Your task to perform on an android device: refresh tabs in the chrome app Image 0: 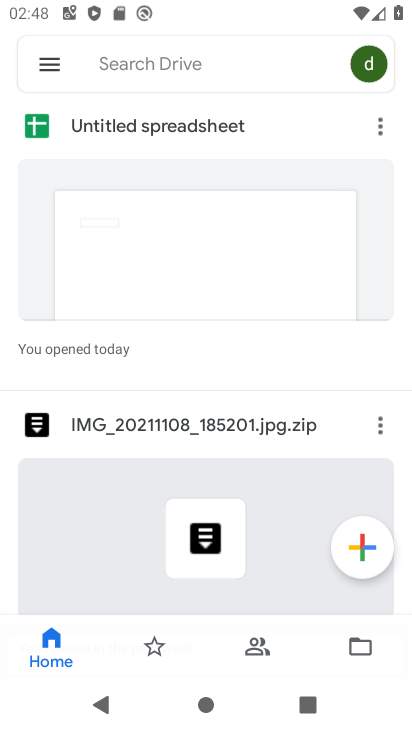
Step 0: press home button
Your task to perform on an android device: refresh tabs in the chrome app Image 1: 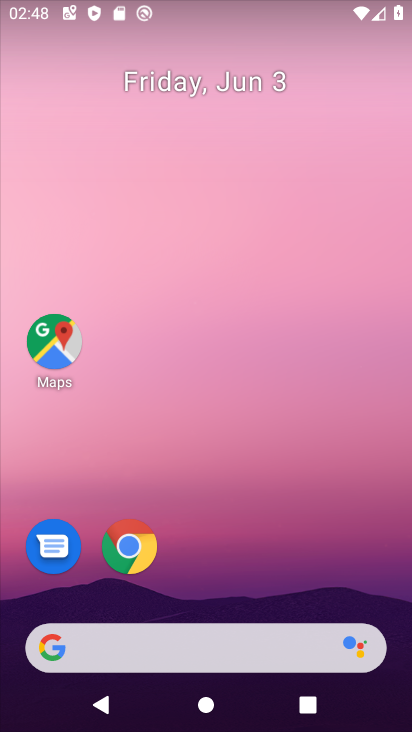
Step 1: click (121, 545)
Your task to perform on an android device: refresh tabs in the chrome app Image 2: 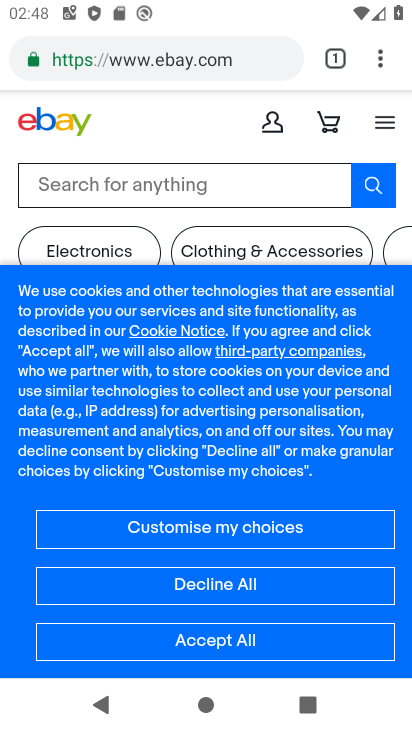
Step 2: click (363, 73)
Your task to perform on an android device: refresh tabs in the chrome app Image 3: 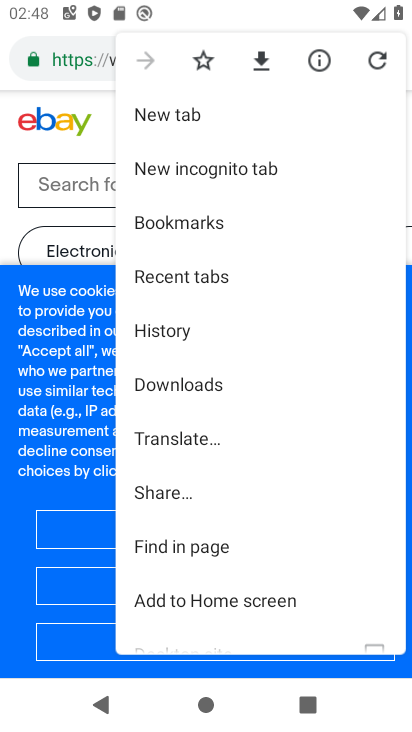
Step 3: click (364, 73)
Your task to perform on an android device: refresh tabs in the chrome app Image 4: 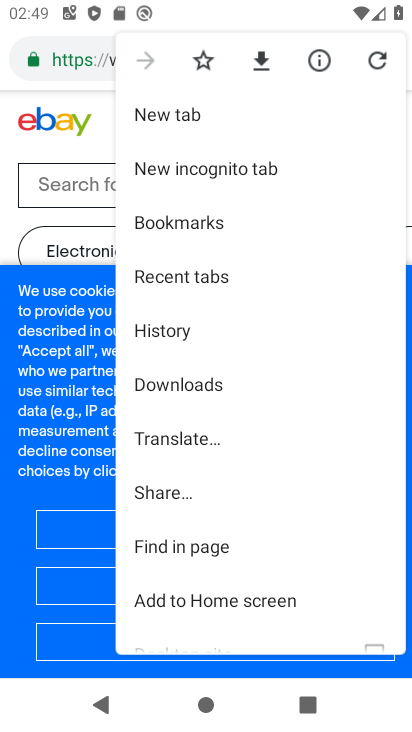
Step 4: click (375, 58)
Your task to perform on an android device: refresh tabs in the chrome app Image 5: 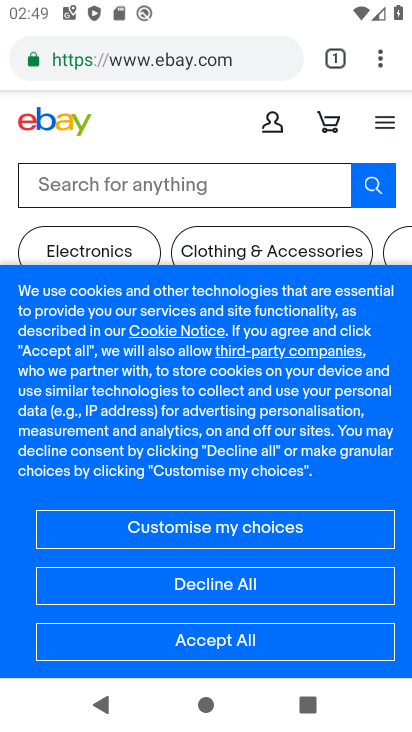
Step 5: task complete